Your task to perform on an android device: turn on showing notifications on the lock screen Image 0: 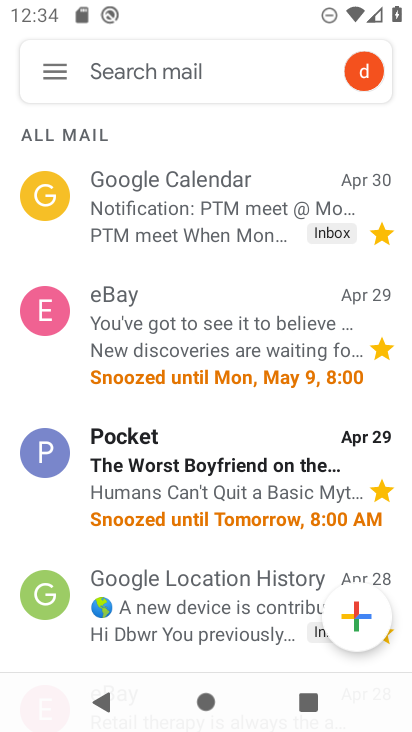
Step 0: task complete